Your task to perform on an android device: Clear the shopping cart on amazon. Image 0: 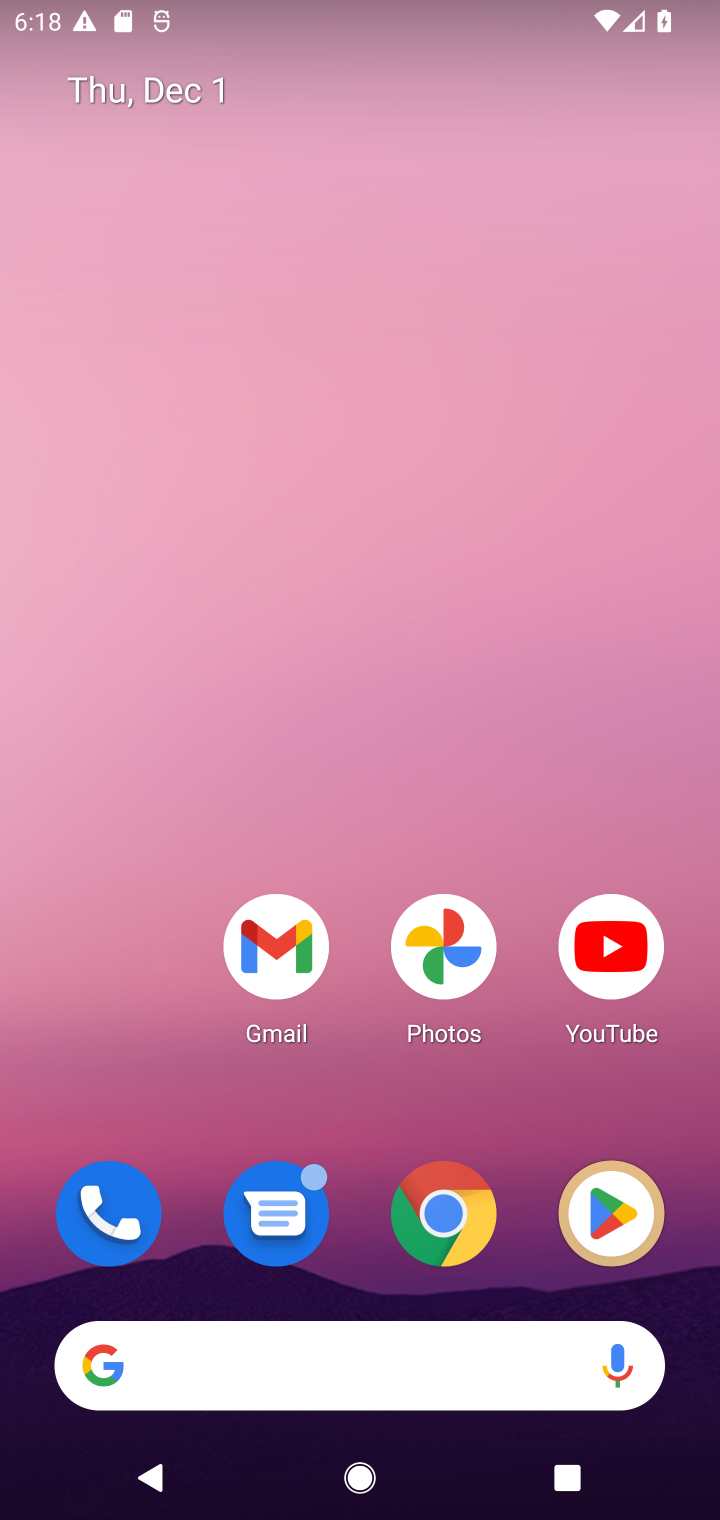
Step 0: click (465, 1200)
Your task to perform on an android device: Clear the shopping cart on amazon. Image 1: 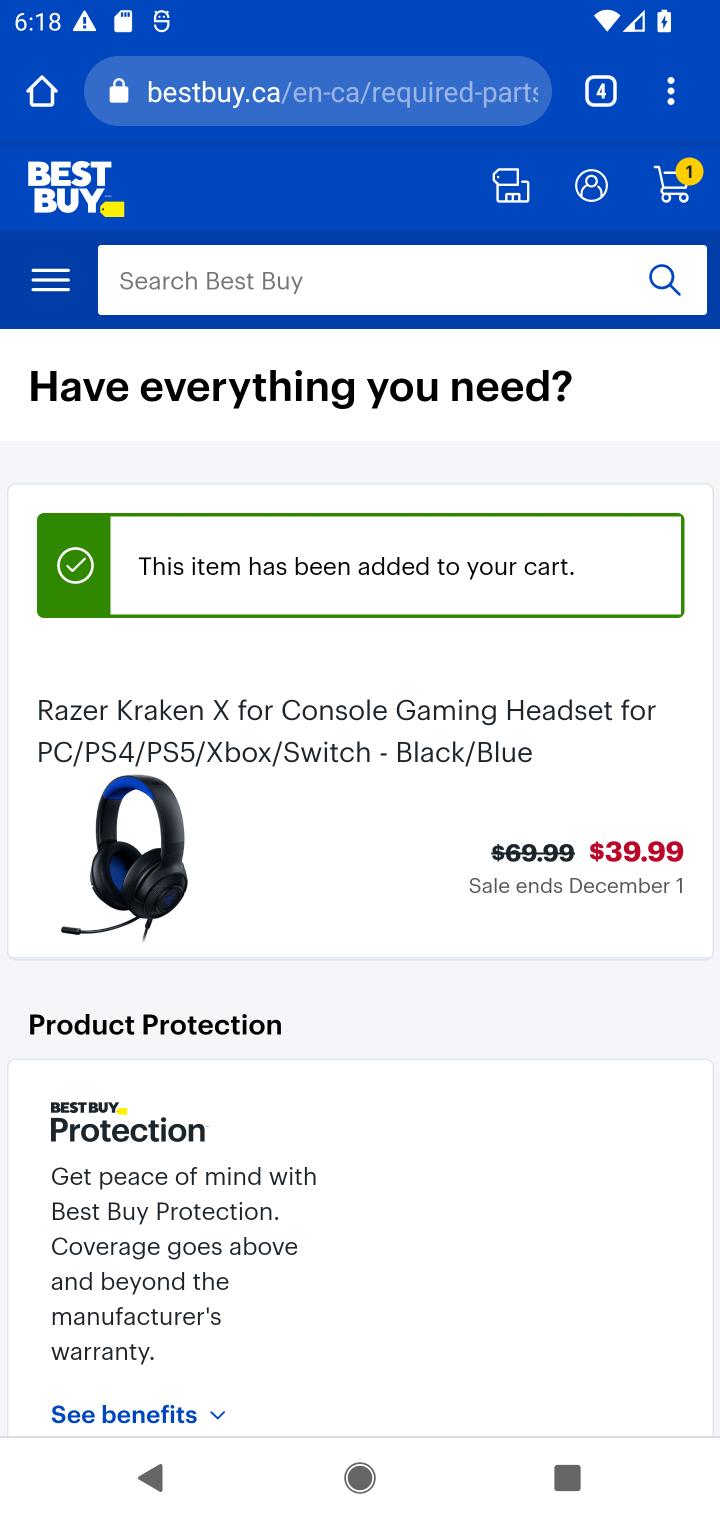
Step 1: click (243, 284)
Your task to perform on an android device: Clear the shopping cart on amazon. Image 2: 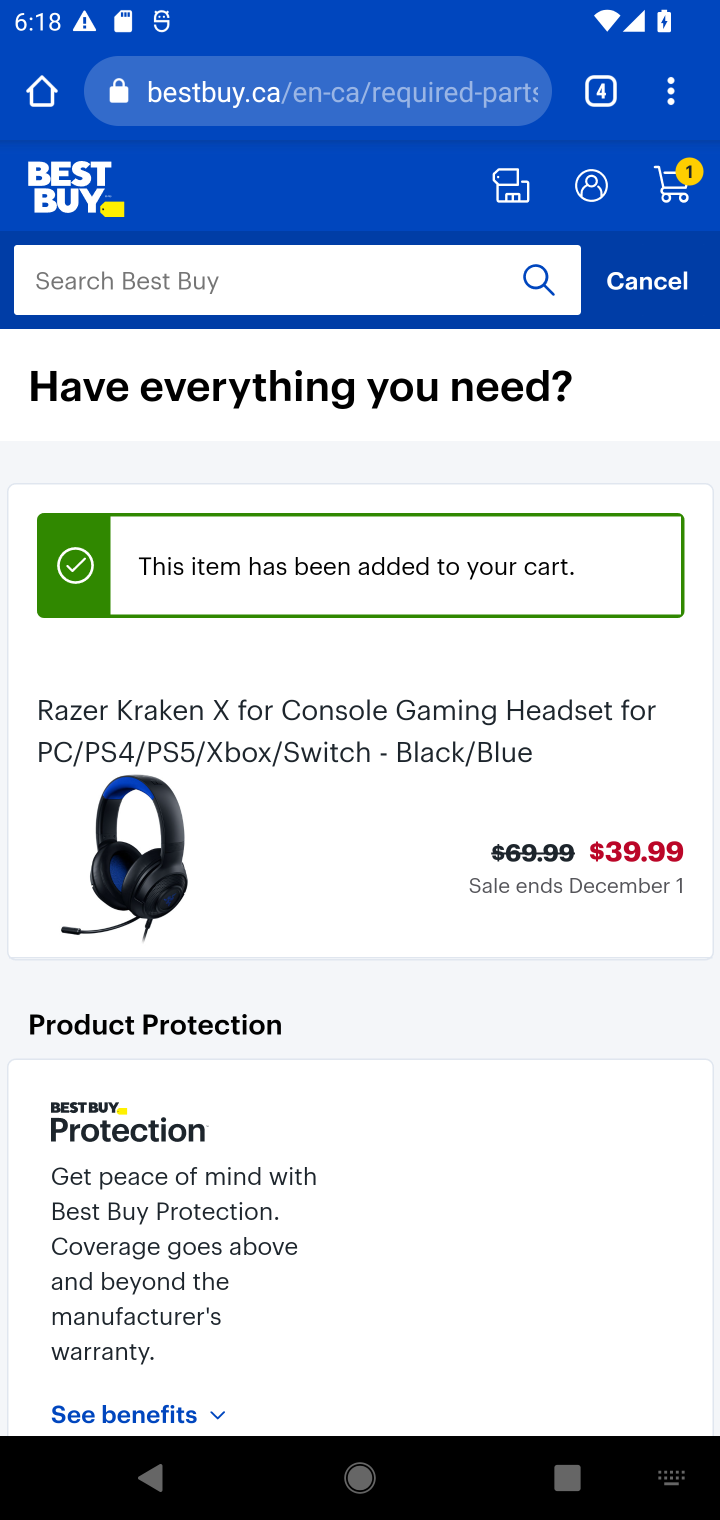
Step 2: click (650, 212)
Your task to perform on an android device: Clear the shopping cart on amazon. Image 3: 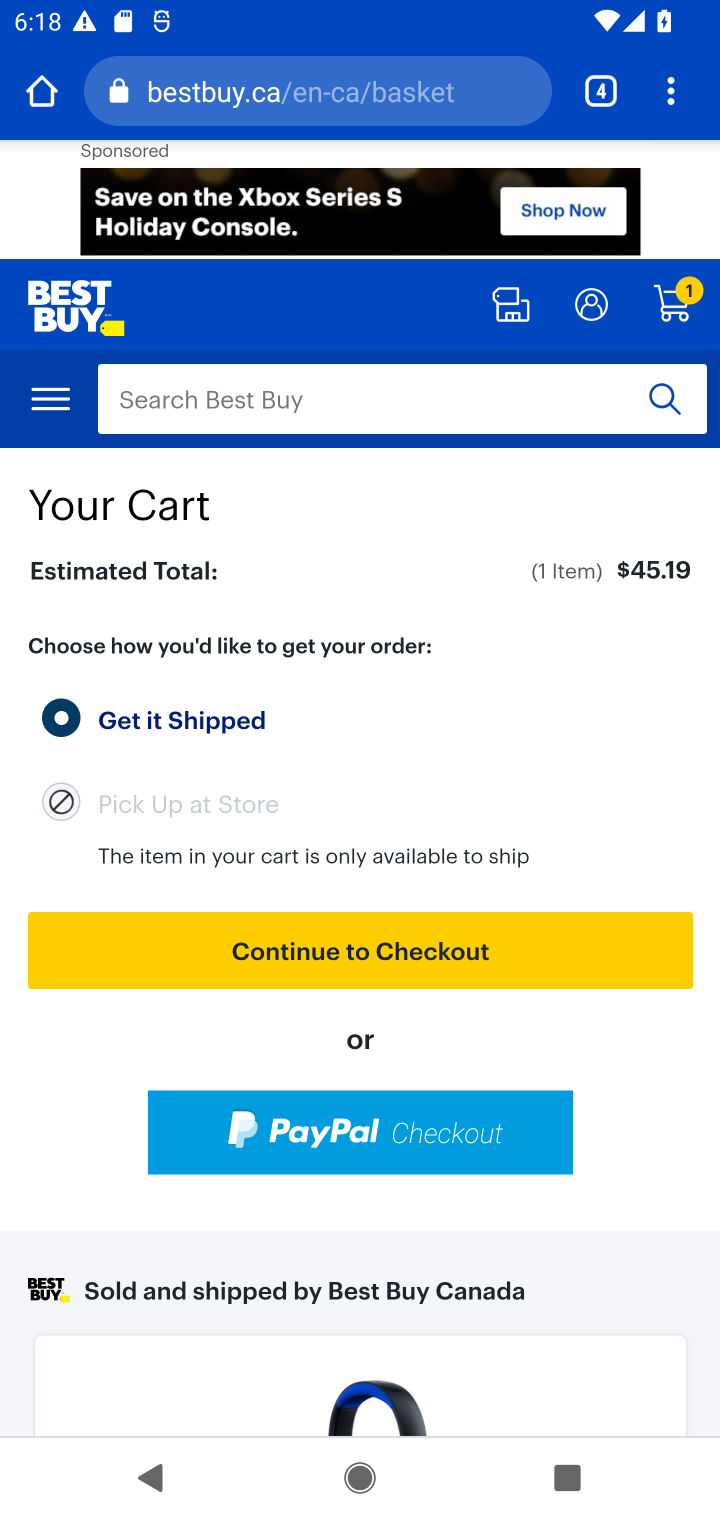
Step 3: task complete